Your task to perform on an android device: Open Google Image 0: 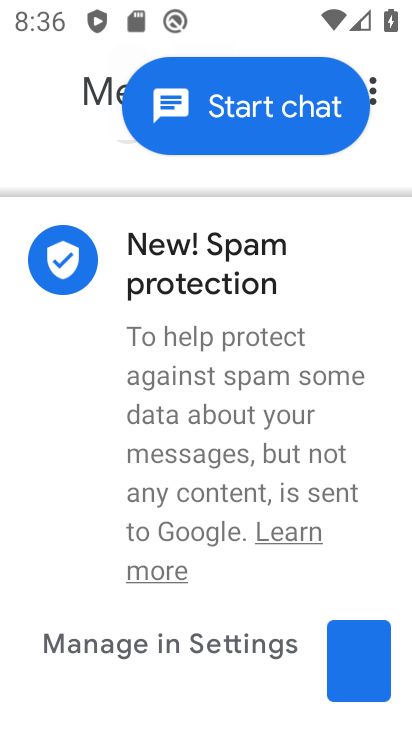
Step 0: press home button
Your task to perform on an android device: Open Google Image 1: 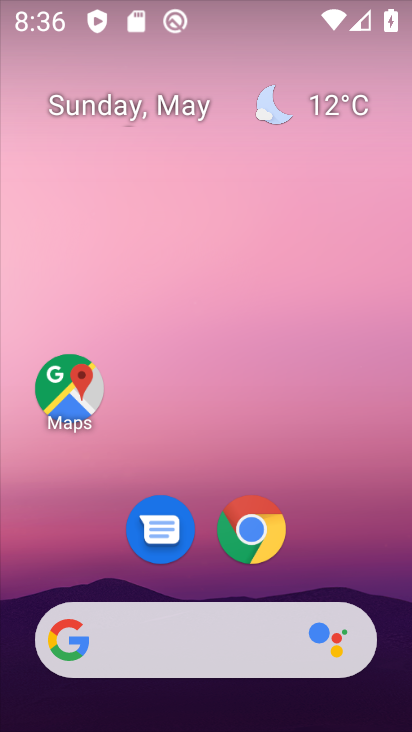
Step 1: drag from (327, 573) to (253, 76)
Your task to perform on an android device: Open Google Image 2: 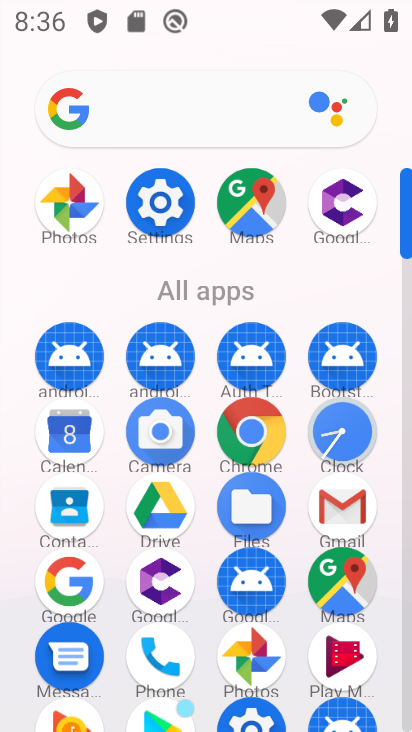
Step 2: click (75, 575)
Your task to perform on an android device: Open Google Image 3: 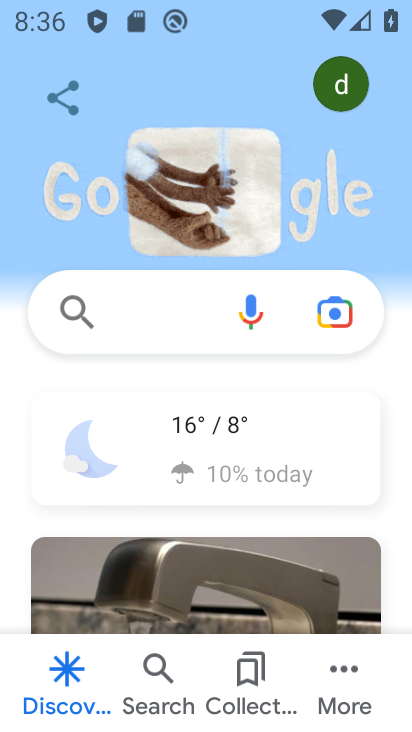
Step 3: task complete